Your task to perform on an android device: move an email to a new category in the gmail app Image 0: 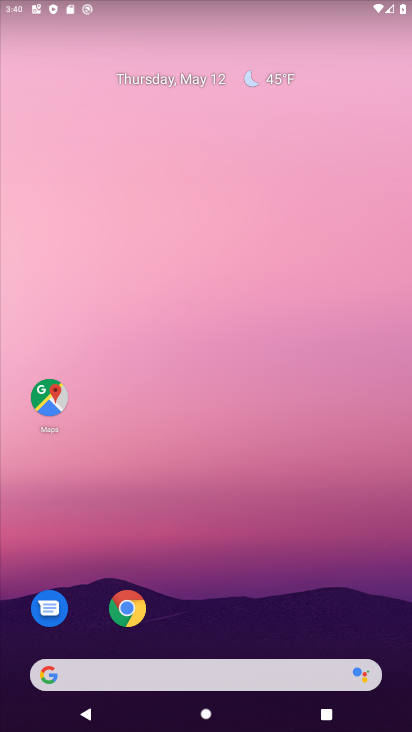
Step 0: drag from (194, 625) to (232, 4)
Your task to perform on an android device: move an email to a new category in the gmail app Image 1: 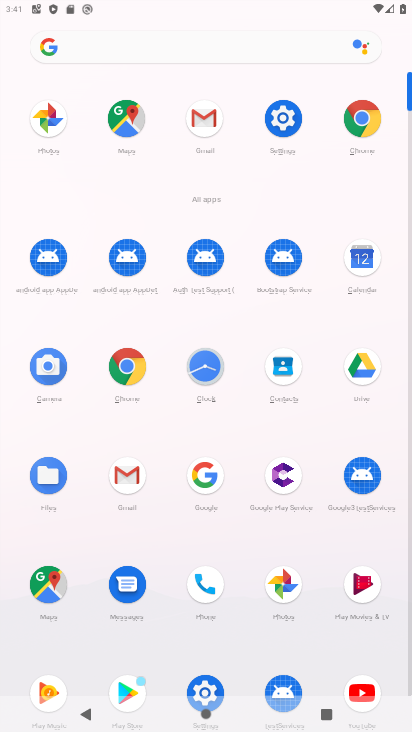
Step 1: click (202, 134)
Your task to perform on an android device: move an email to a new category in the gmail app Image 2: 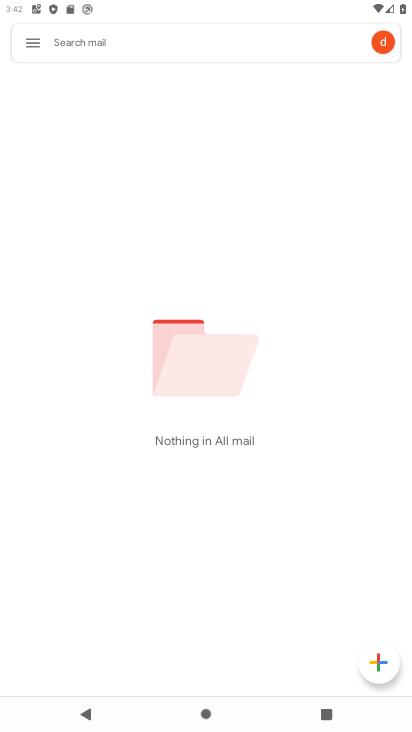
Step 2: task complete